Your task to perform on an android device: Go to Yahoo.com Image 0: 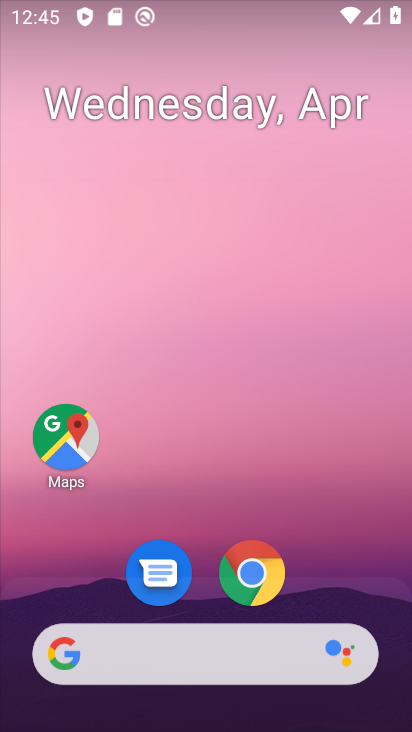
Step 0: press home button
Your task to perform on an android device: Go to Yahoo.com Image 1: 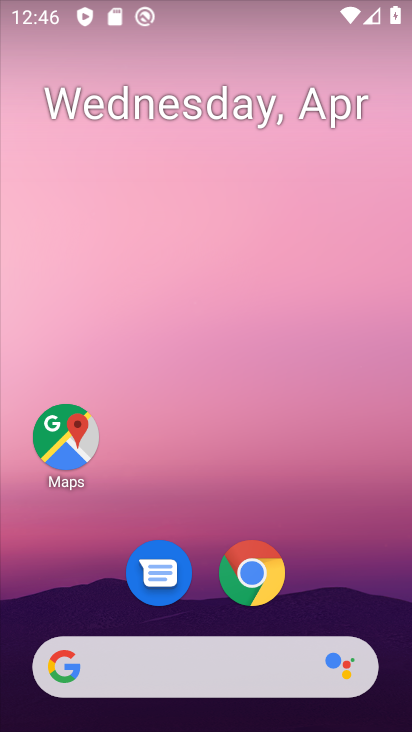
Step 1: click (260, 578)
Your task to perform on an android device: Go to Yahoo.com Image 2: 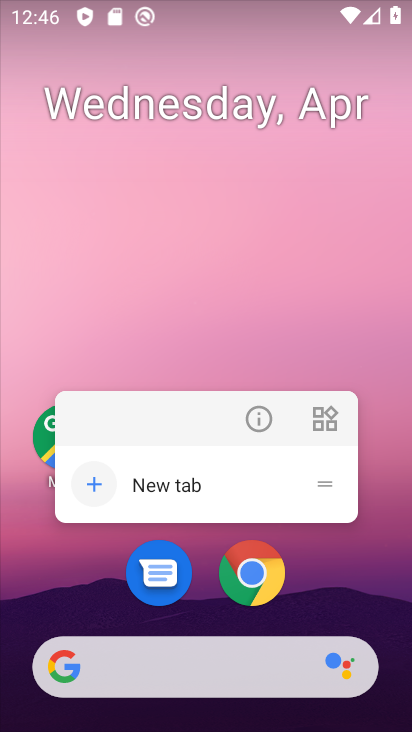
Step 2: click (268, 575)
Your task to perform on an android device: Go to Yahoo.com Image 3: 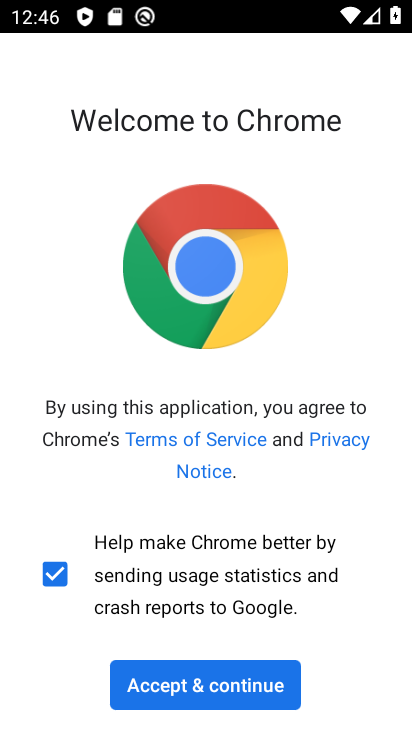
Step 3: click (216, 681)
Your task to perform on an android device: Go to Yahoo.com Image 4: 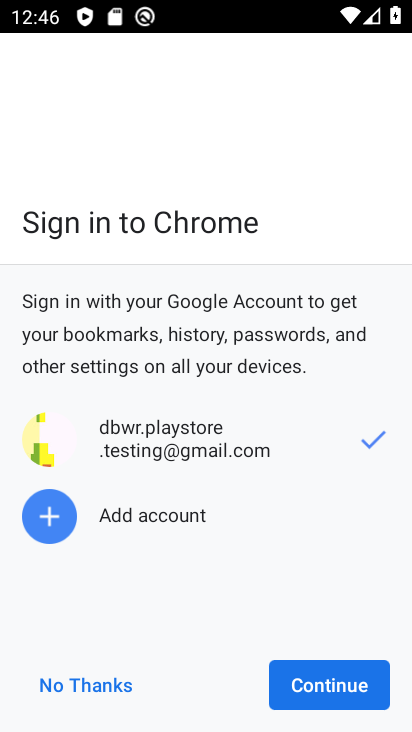
Step 4: click (102, 687)
Your task to perform on an android device: Go to Yahoo.com Image 5: 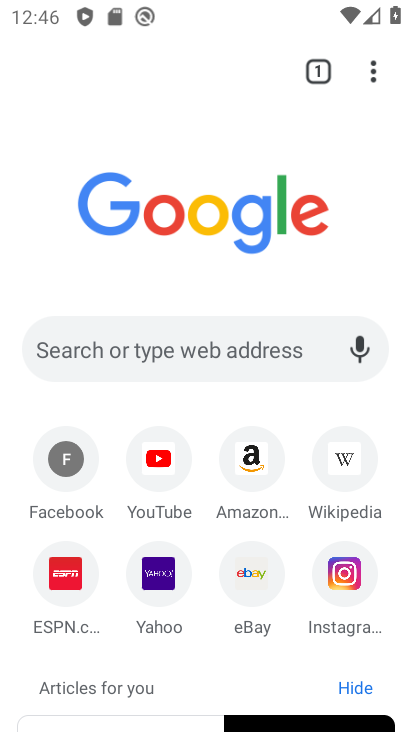
Step 5: click (156, 583)
Your task to perform on an android device: Go to Yahoo.com Image 6: 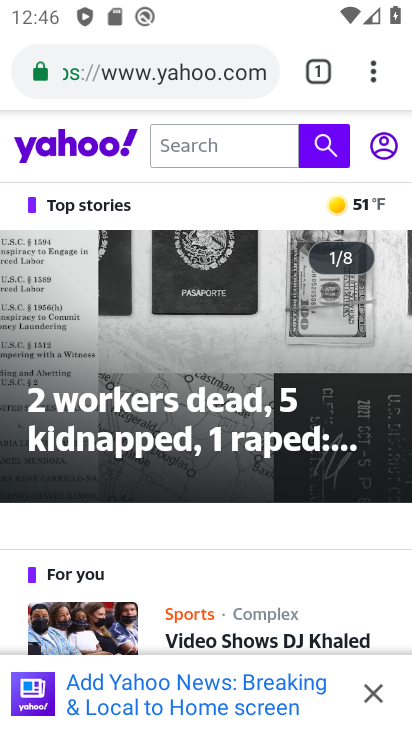
Step 6: task complete